Your task to perform on an android device: What's on my calendar today? Image 0: 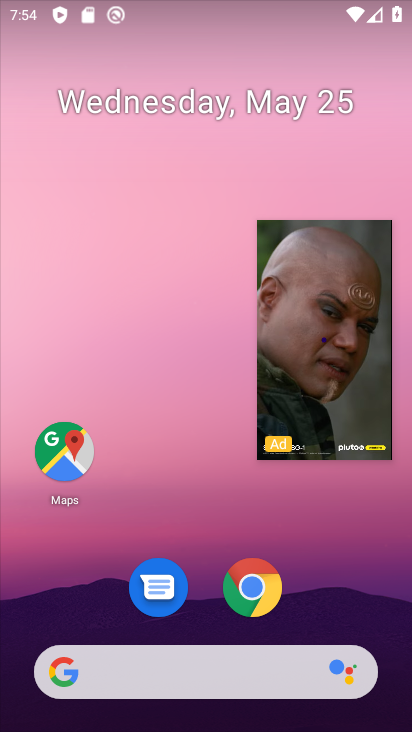
Step 0: drag from (294, 330) to (75, 731)
Your task to perform on an android device: What's on my calendar today? Image 1: 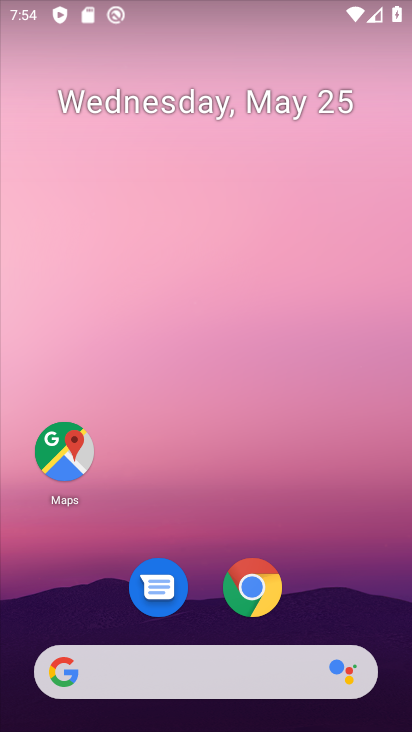
Step 1: drag from (97, 646) to (56, 724)
Your task to perform on an android device: What's on my calendar today? Image 2: 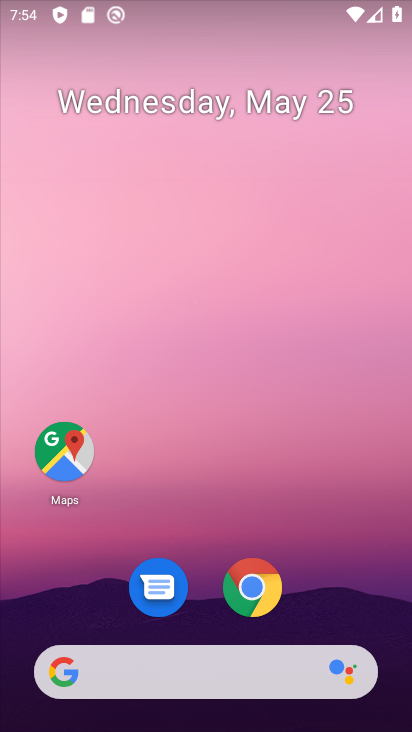
Step 2: drag from (314, 614) to (344, 158)
Your task to perform on an android device: What's on my calendar today? Image 3: 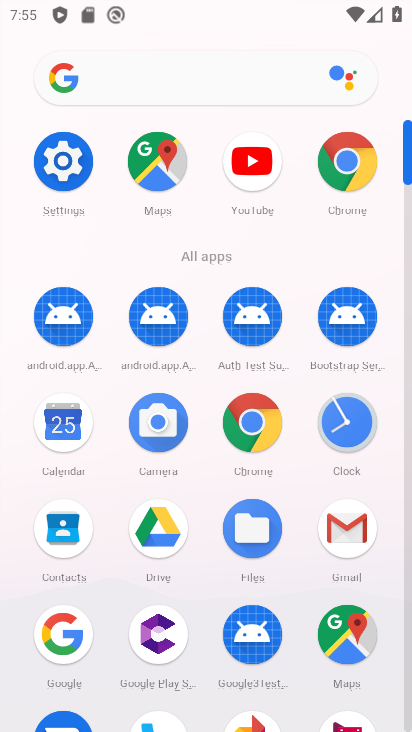
Step 3: click (55, 426)
Your task to perform on an android device: What's on my calendar today? Image 4: 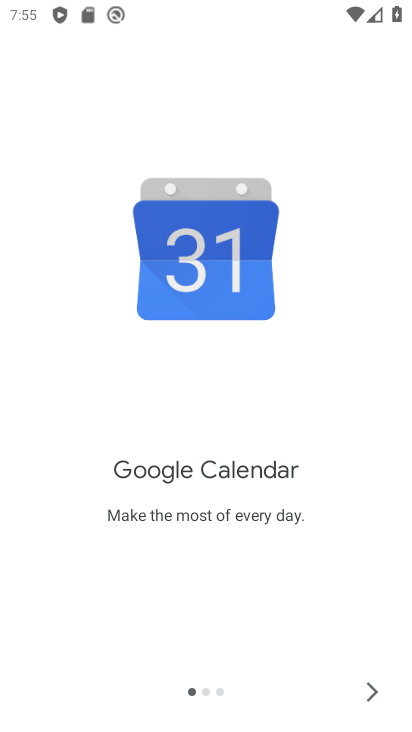
Step 4: click (368, 686)
Your task to perform on an android device: What's on my calendar today? Image 5: 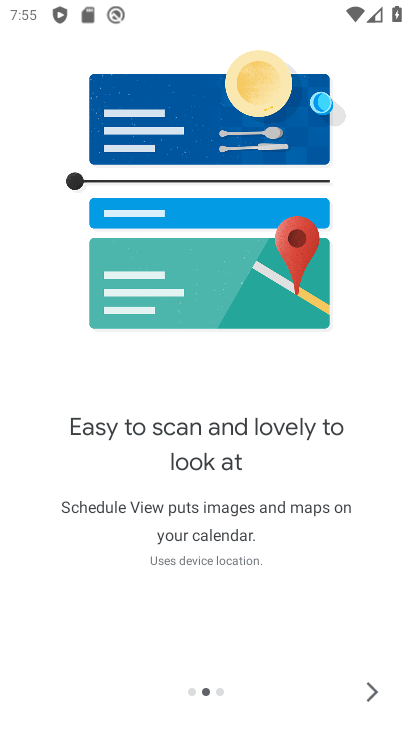
Step 5: click (368, 686)
Your task to perform on an android device: What's on my calendar today? Image 6: 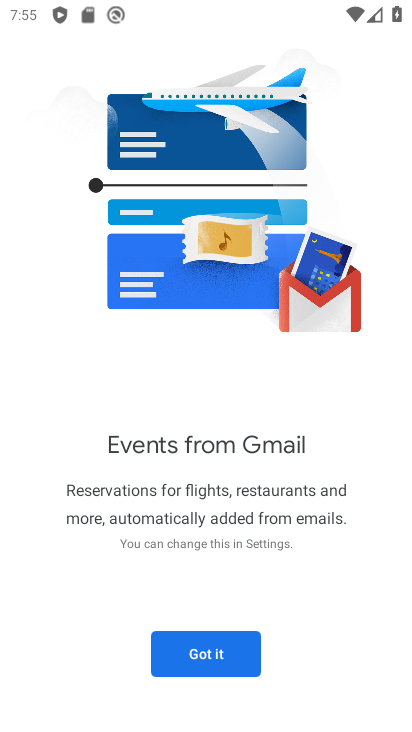
Step 6: click (202, 656)
Your task to perform on an android device: What's on my calendar today? Image 7: 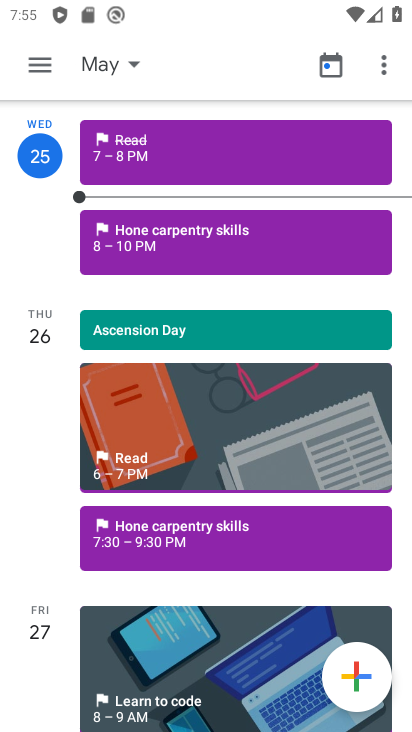
Step 7: click (95, 62)
Your task to perform on an android device: What's on my calendar today? Image 8: 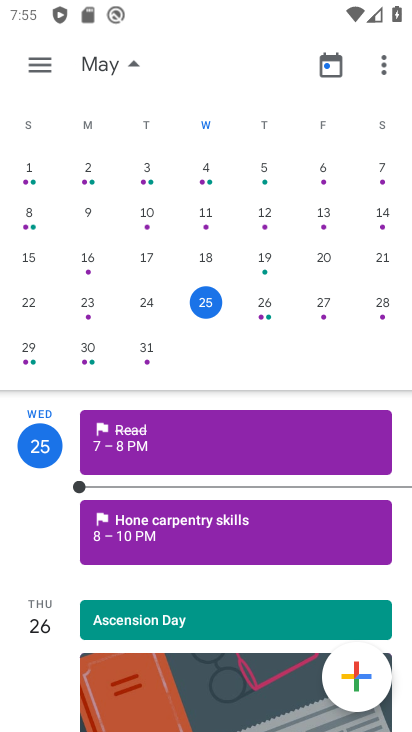
Step 8: click (261, 312)
Your task to perform on an android device: What's on my calendar today? Image 9: 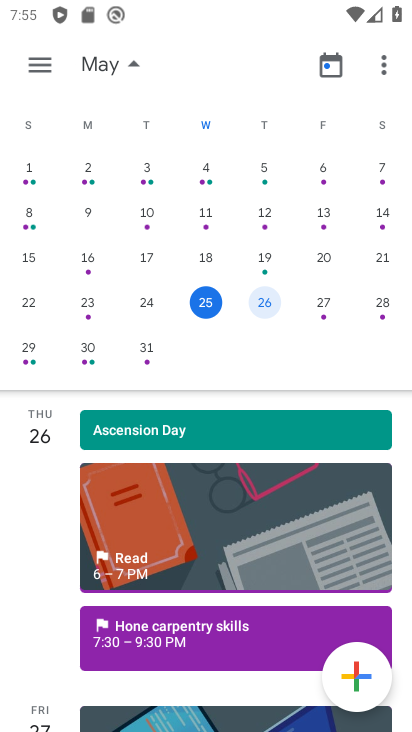
Step 9: task complete